Your task to perform on an android device: all mails in gmail Image 0: 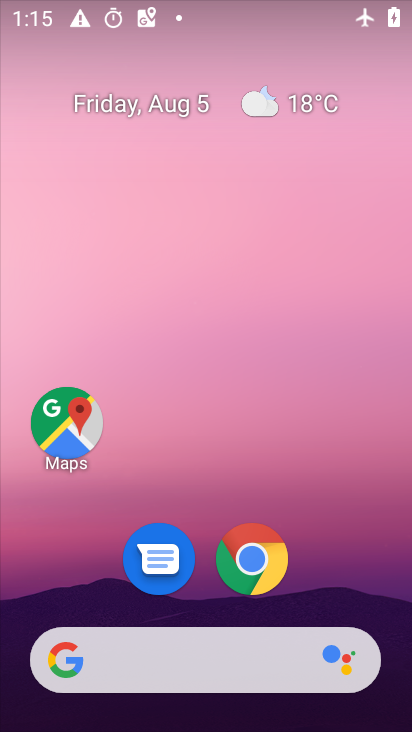
Step 0: drag from (77, 703) to (115, 369)
Your task to perform on an android device: all mails in gmail Image 1: 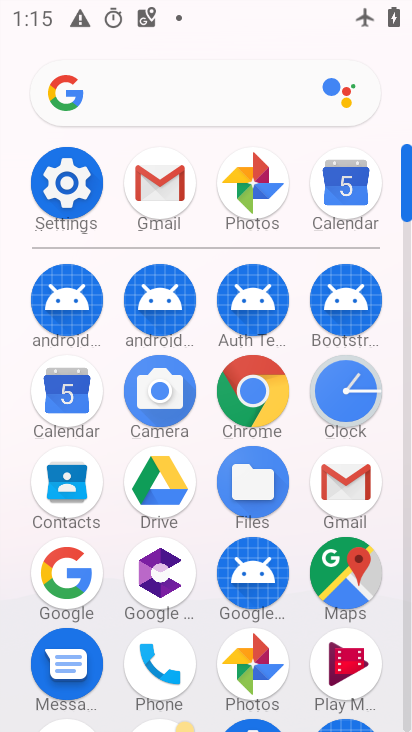
Step 1: click (154, 199)
Your task to perform on an android device: all mails in gmail Image 2: 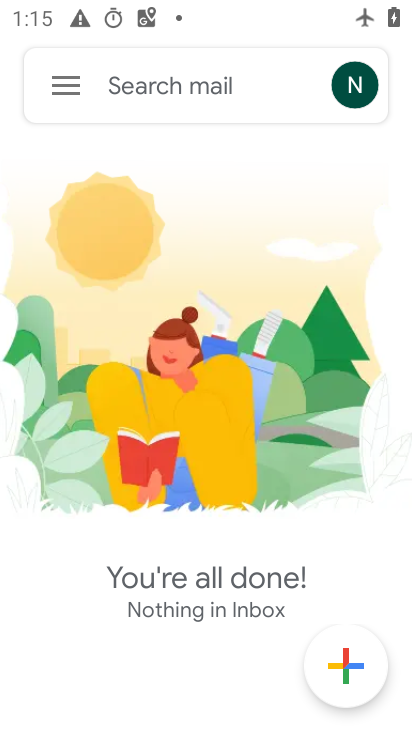
Step 2: click (72, 88)
Your task to perform on an android device: all mails in gmail Image 3: 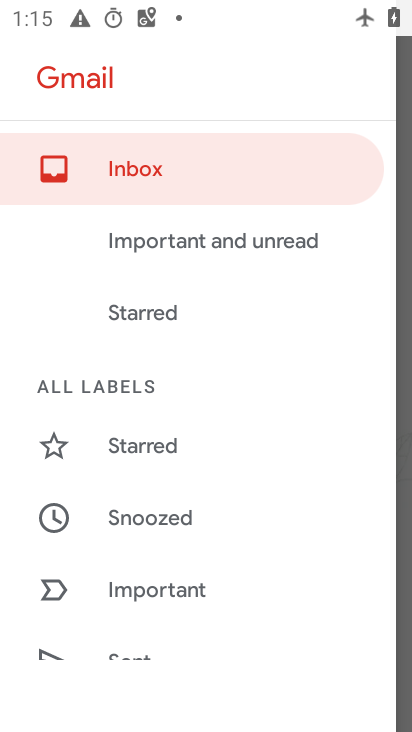
Step 3: drag from (327, 575) to (195, 7)
Your task to perform on an android device: all mails in gmail Image 4: 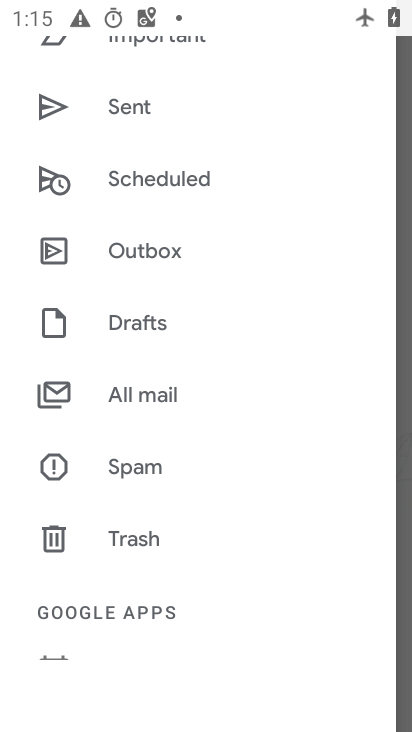
Step 4: click (139, 402)
Your task to perform on an android device: all mails in gmail Image 5: 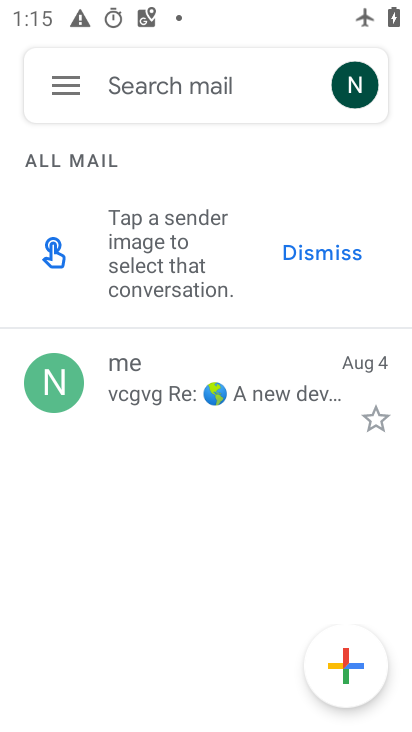
Step 5: task complete